Your task to perform on an android device: turn on location history Image 0: 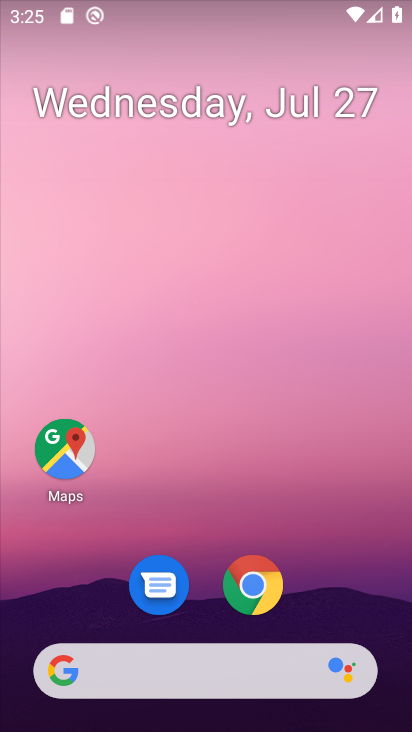
Step 0: drag from (336, 574) to (248, 123)
Your task to perform on an android device: turn on location history Image 1: 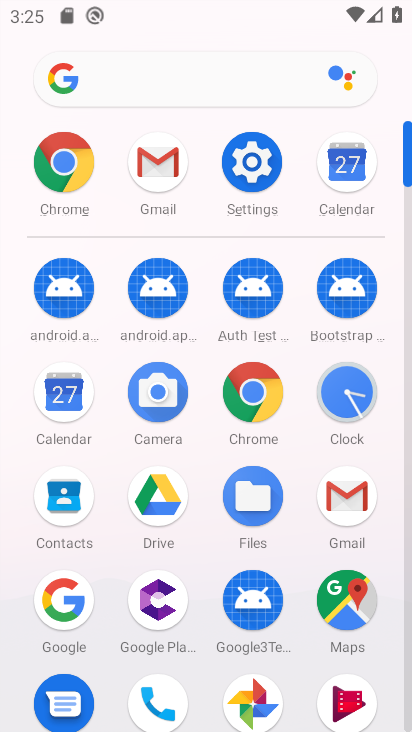
Step 1: click (259, 156)
Your task to perform on an android device: turn on location history Image 2: 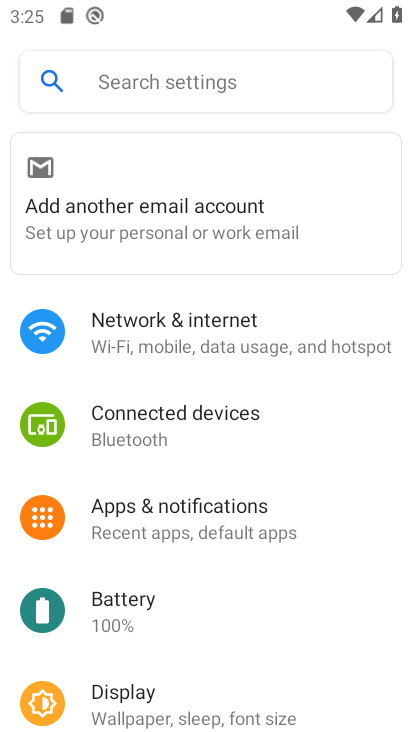
Step 2: drag from (266, 628) to (298, 29)
Your task to perform on an android device: turn on location history Image 3: 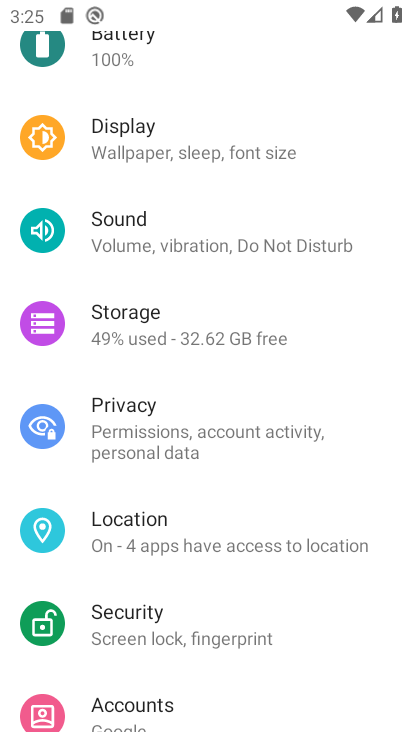
Step 3: click (244, 537)
Your task to perform on an android device: turn on location history Image 4: 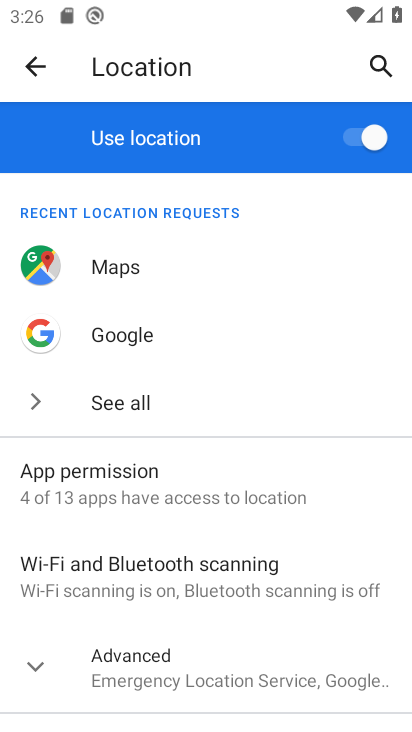
Step 4: drag from (257, 530) to (252, 227)
Your task to perform on an android device: turn on location history Image 5: 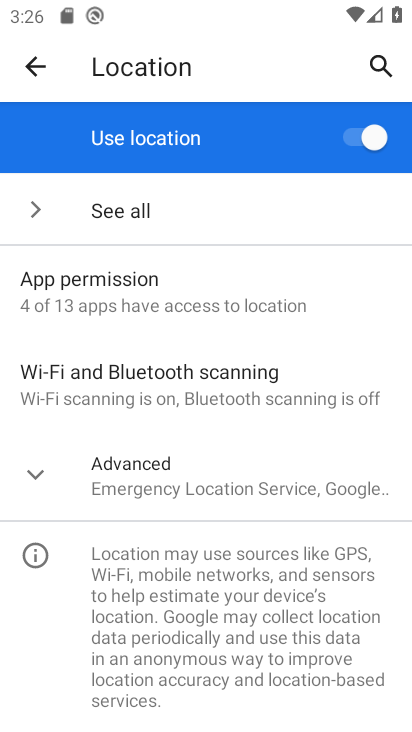
Step 5: click (32, 472)
Your task to perform on an android device: turn on location history Image 6: 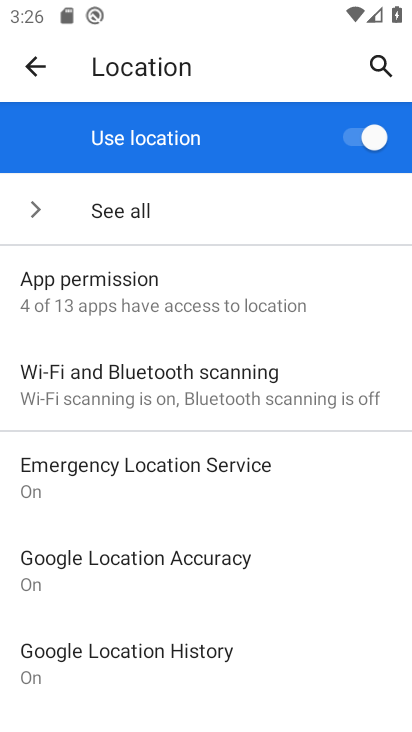
Step 6: task complete